Your task to perform on an android device: What's on my calendar today? Image 0: 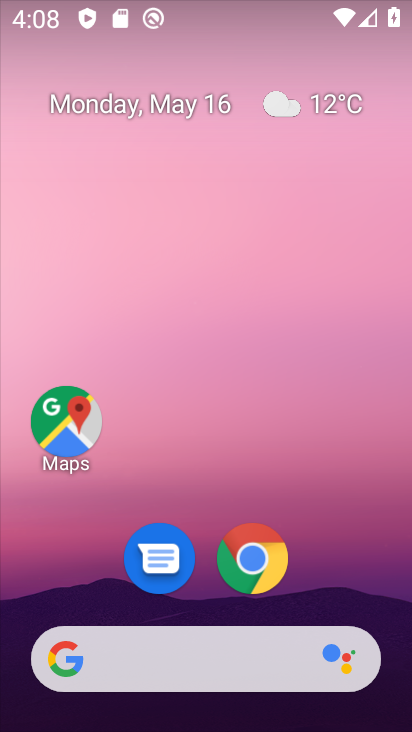
Step 0: drag from (337, 575) to (341, 326)
Your task to perform on an android device: What's on my calendar today? Image 1: 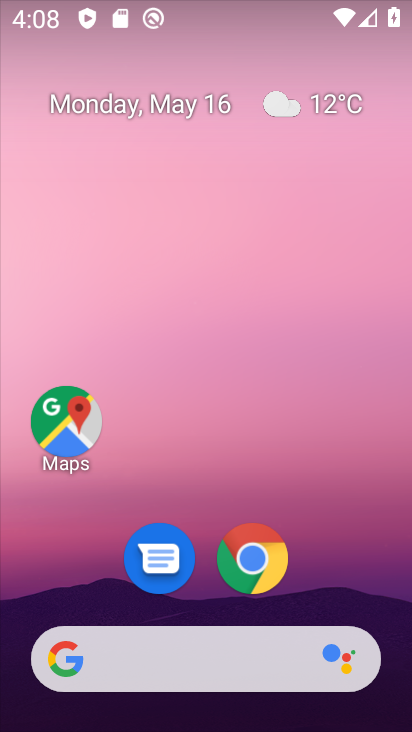
Step 1: drag from (324, 576) to (301, 367)
Your task to perform on an android device: What's on my calendar today? Image 2: 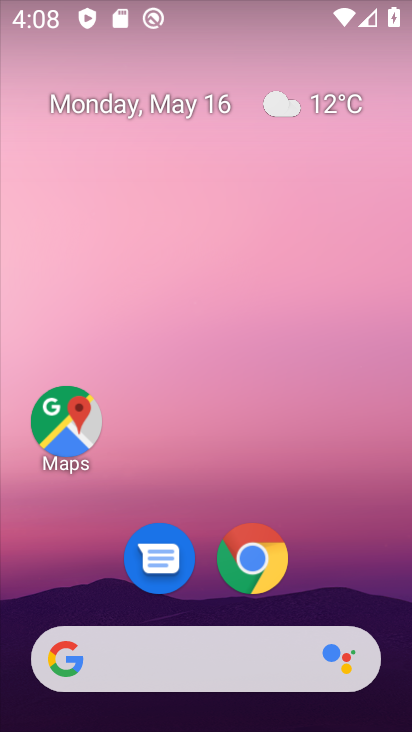
Step 2: drag from (321, 538) to (323, 132)
Your task to perform on an android device: What's on my calendar today? Image 3: 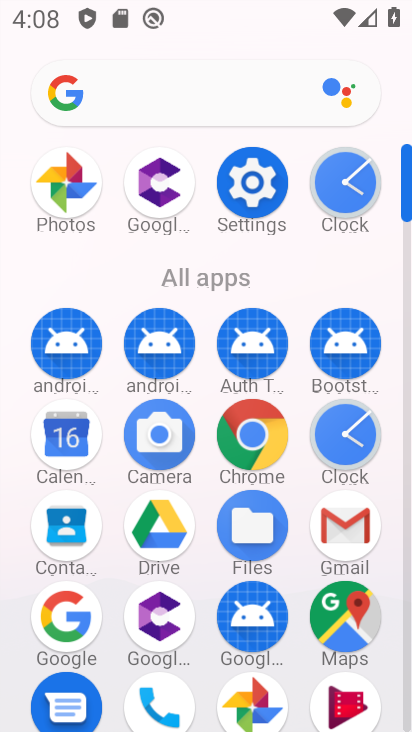
Step 3: click (70, 461)
Your task to perform on an android device: What's on my calendar today? Image 4: 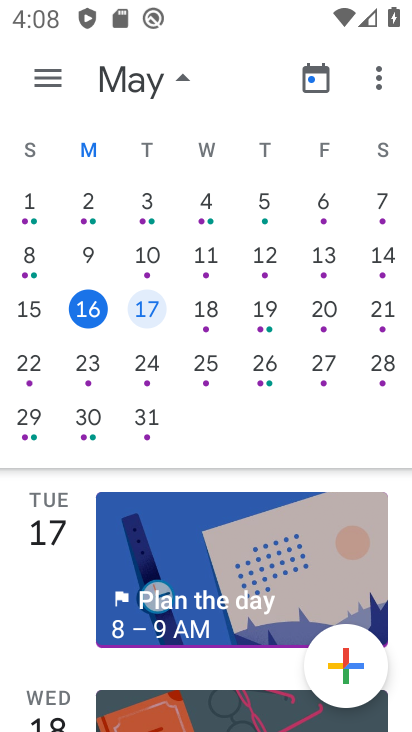
Step 4: click (91, 314)
Your task to perform on an android device: What's on my calendar today? Image 5: 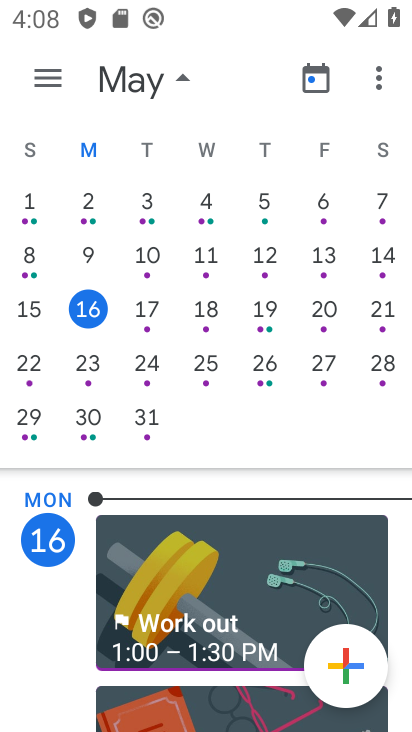
Step 5: task complete